Your task to perform on an android device: toggle notifications settings in the gmail app Image 0: 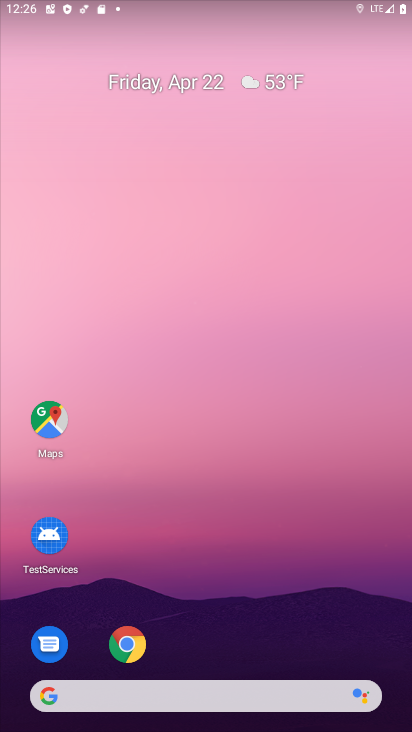
Step 0: drag from (266, 587) to (121, 2)
Your task to perform on an android device: toggle notifications settings in the gmail app Image 1: 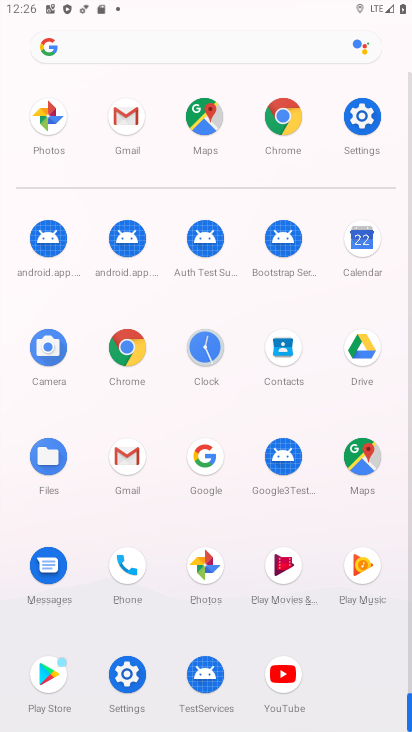
Step 1: click (127, 455)
Your task to perform on an android device: toggle notifications settings in the gmail app Image 2: 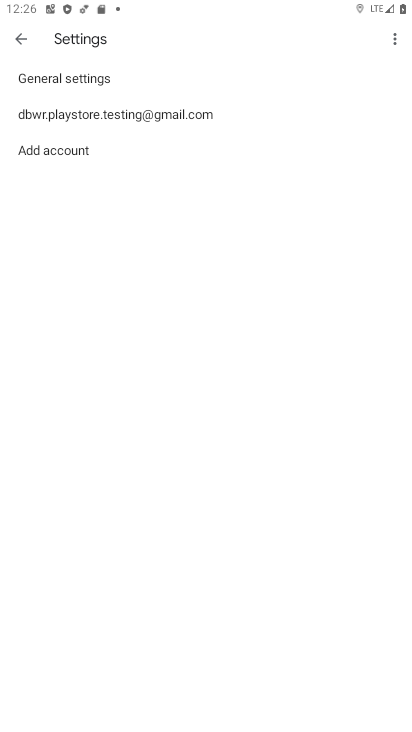
Step 2: click (105, 113)
Your task to perform on an android device: toggle notifications settings in the gmail app Image 3: 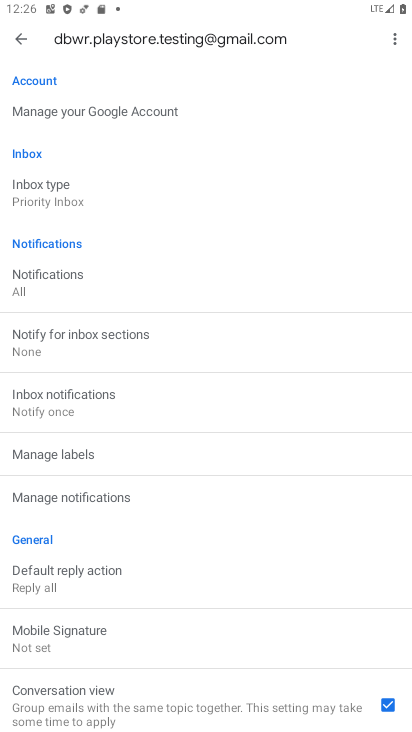
Step 3: click (52, 496)
Your task to perform on an android device: toggle notifications settings in the gmail app Image 4: 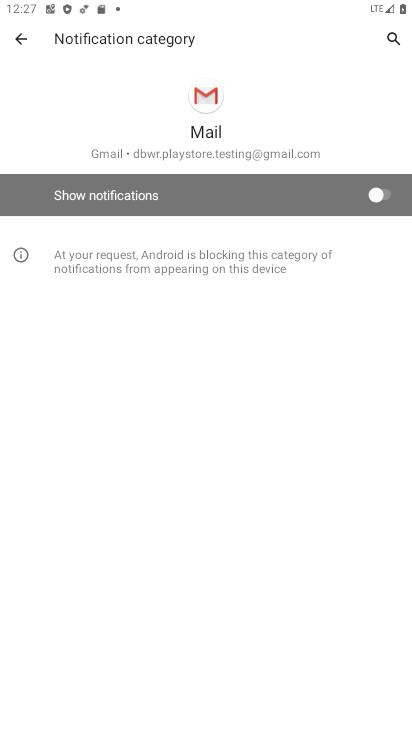
Step 4: click (346, 187)
Your task to perform on an android device: toggle notifications settings in the gmail app Image 5: 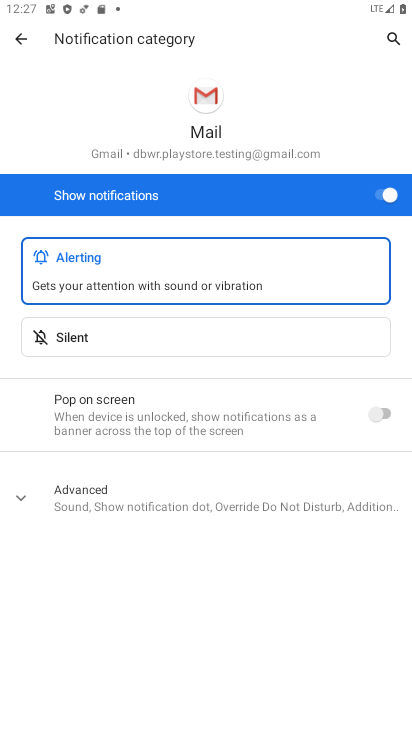
Step 5: task complete